Your task to perform on an android device: View the shopping cart on bestbuy.com. Search for "razer deathadder" on bestbuy.com, select the first entry, and add it to the cart. Image 0: 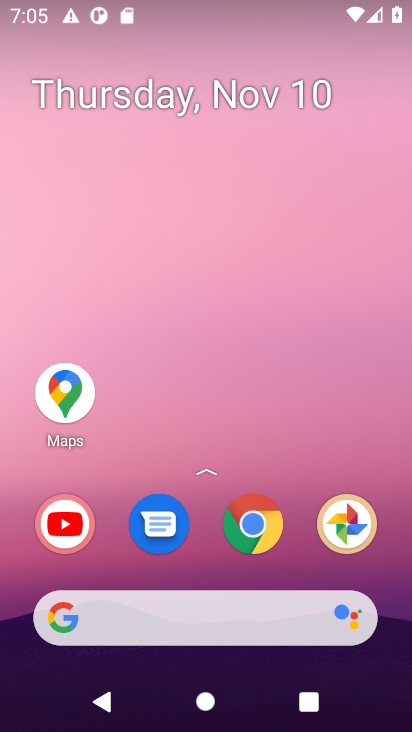
Step 0: click (189, 621)
Your task to perform on an android device: View the shopping cart on bestbuy.com. Search for "razer deathadder" on bestbuy.com, select the first entry, and add it to the cart. Image 1: 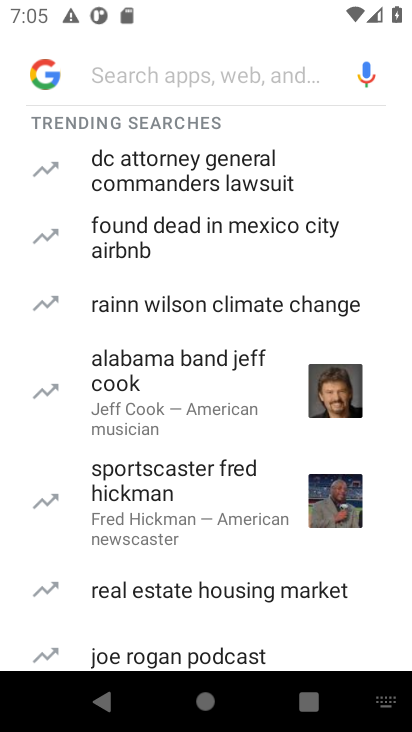
Step 1: type "bestbuy"
Your task to perform on an android device: View the shopping cart on bestbuy.com. Search for "razer deathadder" on bestbuy.com, select the first entry, and add it to the cart. Image 2: 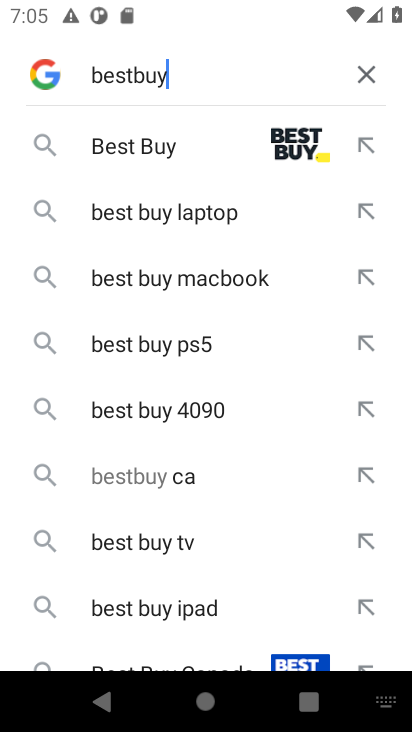
Step 2: click (163, 155)
Your task to perform on an android device: View the shopping cart on bestbuy.com. Search for "razer deathadder" on bestbuy.com, select the first entry, and add it to the cart. Image 3: 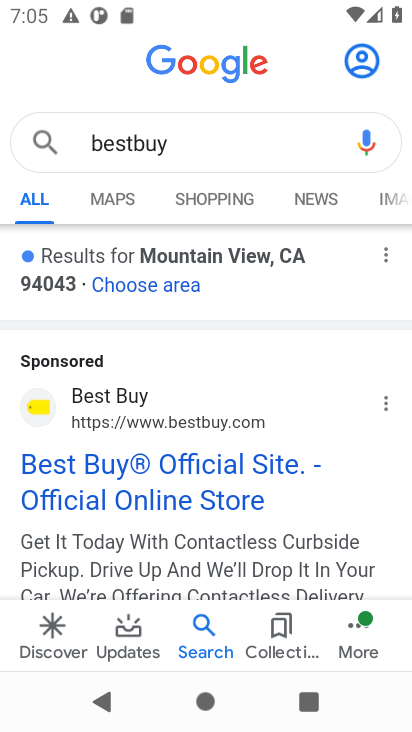
Step 3: drag from (305, 570) to (337, 33)
Your task to perform on an android device: View the shopping cart on bestbuy.com. Search for "razer deathadder" on bestbuy.com, select the first entry, and add it to the cart. Image 4: 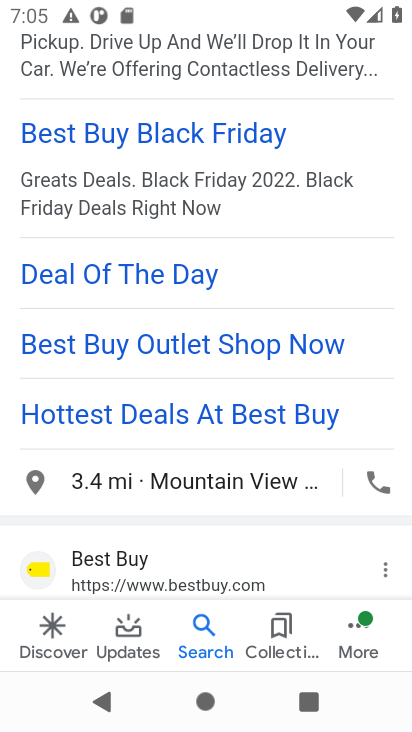
Step 4: drag from (272, 559) to (264, 197)
Your task to perform on an android device: View the shopping cart on bestbuy.com. Search for "razer deathadder" on bestbuy.com, select the first entry, and add it to the cart. Image 5: 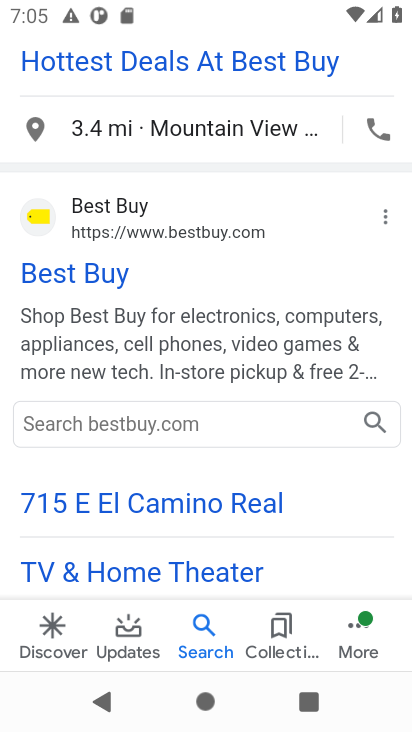
Step 5: click (68, 425)
Your task to perform on an android device: View the shopping cart on bestbuy.com. Search for "razer deathadder" on bestbuy.com, select the first entry, and add it to the cart. Image 6: 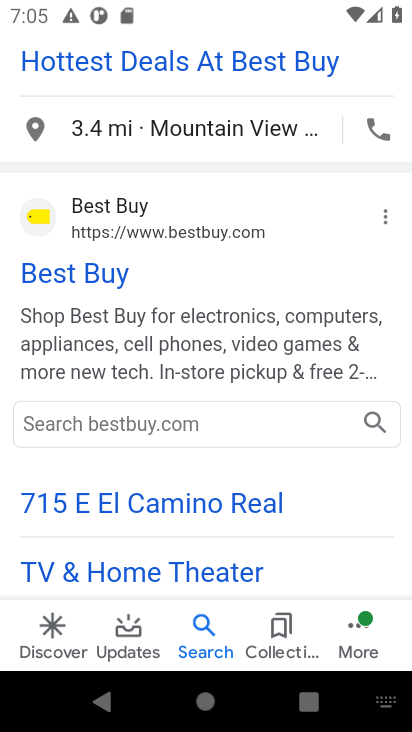
Step 6: type "razer deathadder"
Your task to perform on an android device: View the shopping cart on bestbuy.com. Search for "razer deathadder" on bestbuy.com, select the first entry, and add it to the cart. Image 7: 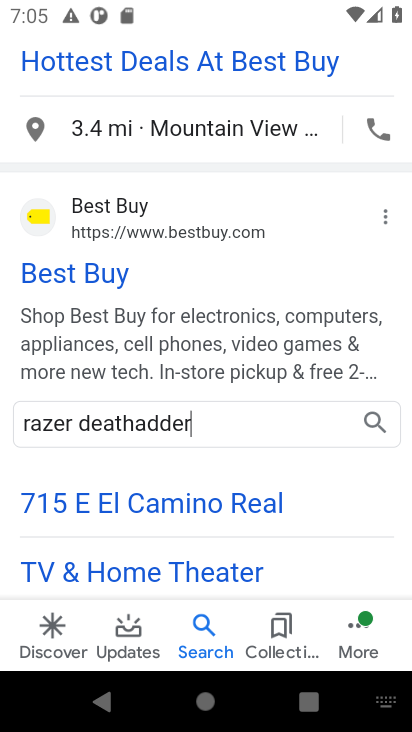
Step 7: click (374, 422)
Your task to perform on an android device: View the shopping cart on bestbuy.com. Search for "razer deathadder" on bestbuy.com, select the first entry, and add it to the cart. Image 8: 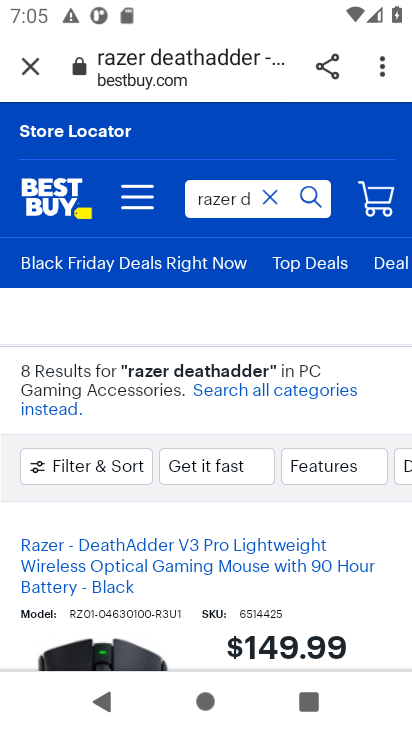
Step 8: drag from (290, 598) to (330, 357)
Your task to perform on an android device: View the shopping cart on bestbuy.com. Search for "razer deathadder" on bestbuy.com, select the first entry, and add it to the cart. Image 9: 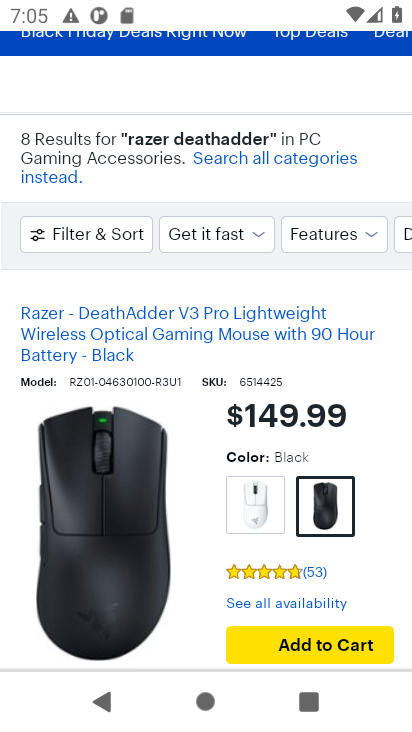
Step 9: click (316, 642)
Your task to perform on an android device: View the shopping cart on bestbuy.com. Search for "razer deathadder" on bestbuy.com, select the first entry, and add it to the cart. Image 10: 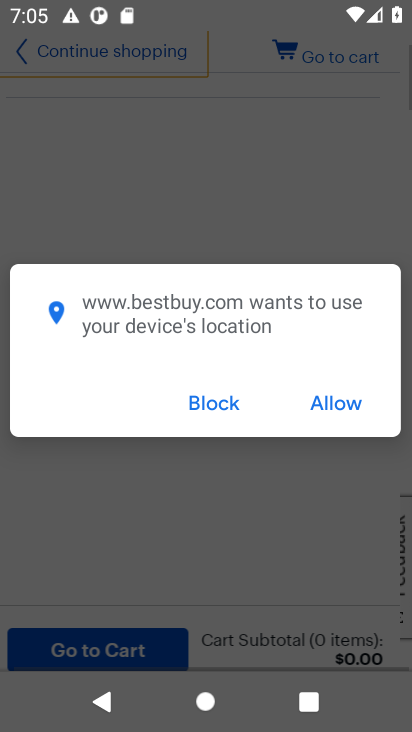
Step 10: click (228, 405)
Your task to perform on an android device: View the shopping cart on bestbuy.com. Search for "razer deathadder" on bestbuy.com, select the first entry, and add it to the cart. Image 11: 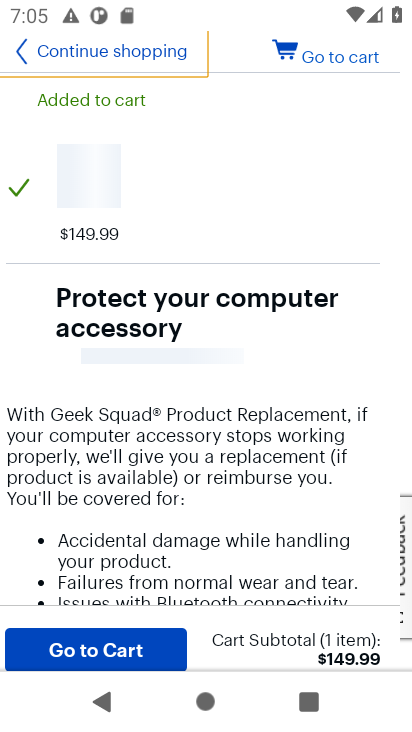
Step 11: task complete